Your task to perform on an android device: toggle pop-ups in chrome Image 0: 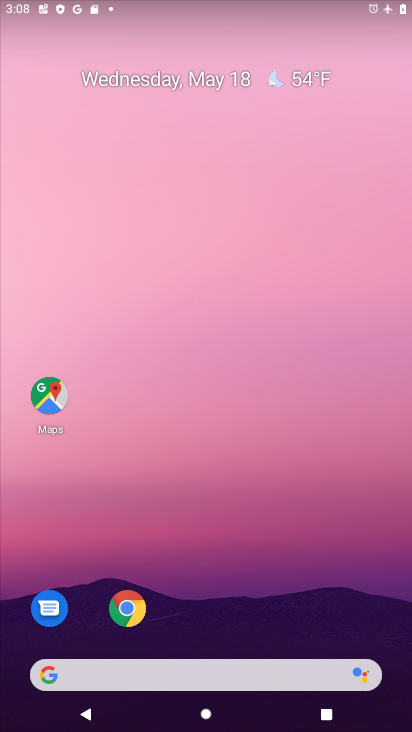
Step 0: click (122, 614)
Your task to perform on an android device: toggle pop-ups in chrome Image 1: 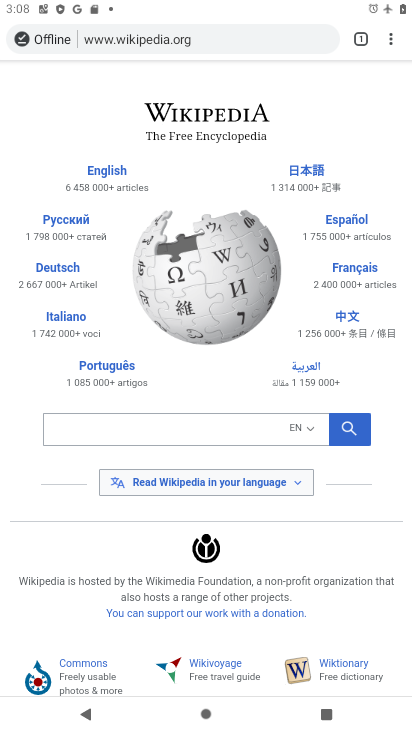
Step 1: click (392, 44)
Your task to perform on an android device: toggle pop-ups in chrome Image 2: 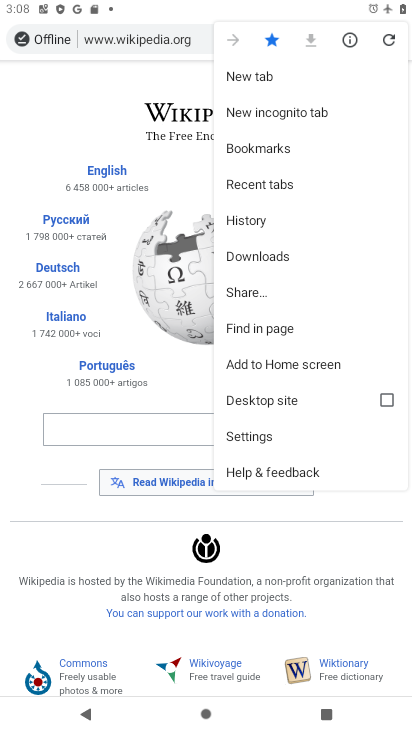
Step 2: click (261, 441)
Your task to perform on an android device: toggle pop-ups in chrome Image 3: 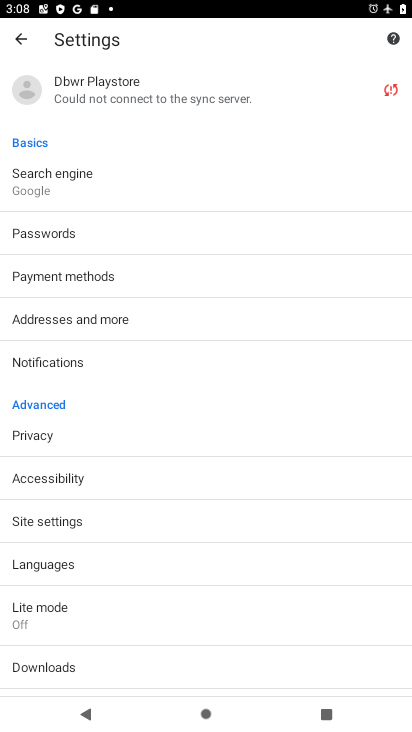
Step 3: click (47, 526)
Your task to perform on an android device: toggle pop-ups in chrome Image 4: 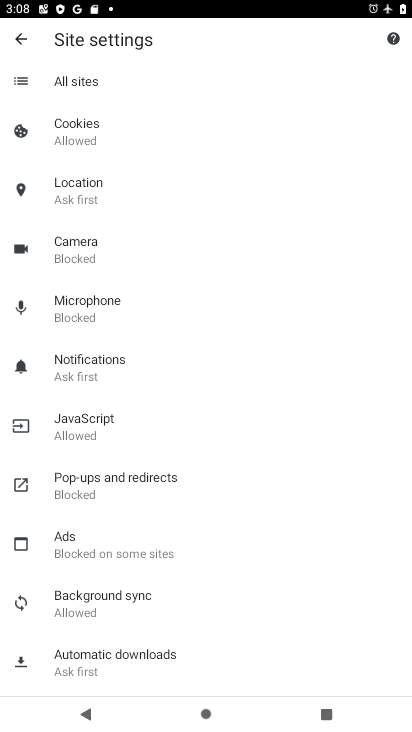
Step 4: click (97, 489)
Your task to perform on an android device: toggle pop-ups in chrome Image 5: 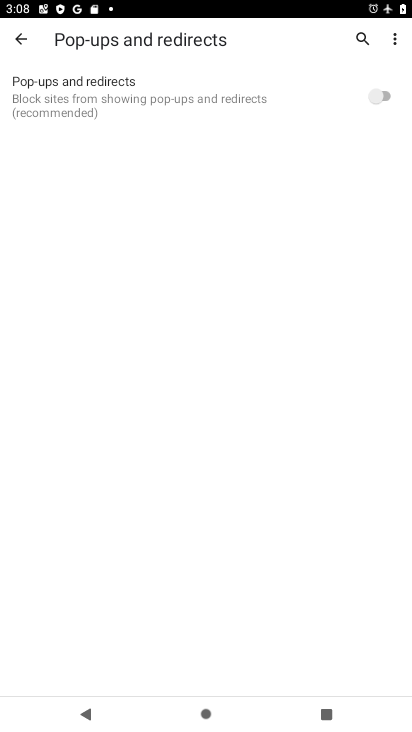
Step 5: click (386, 95)
Your task to perform on an android device: toggle pop-ups in chrome Image 6: 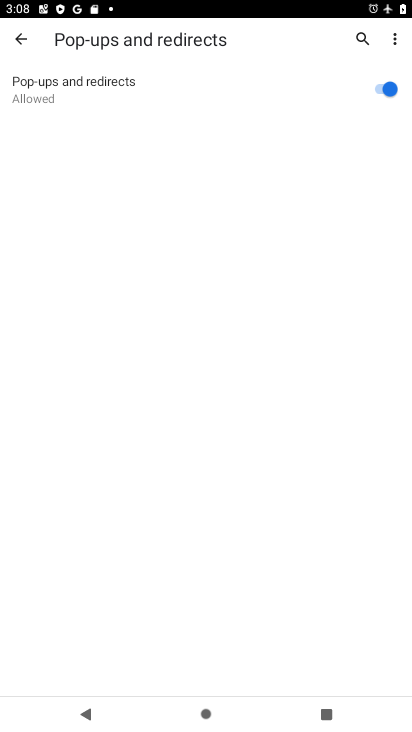
Step 6: task complete